Your task to perform on an android device: turn off wifi Image 0: 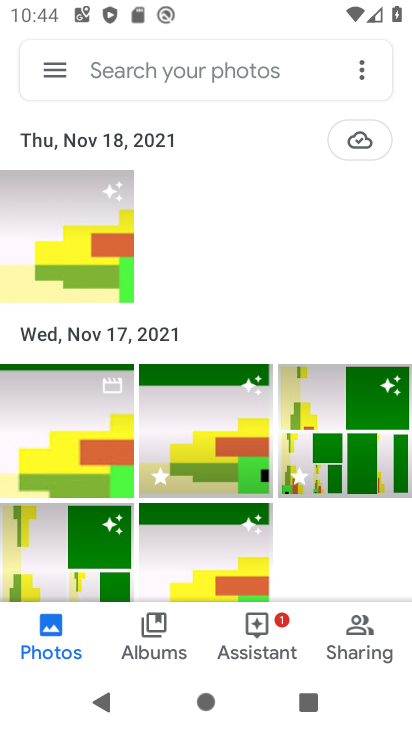
Step 0: press home button
Your task to perform on an android device: turn off wifi Image 1: 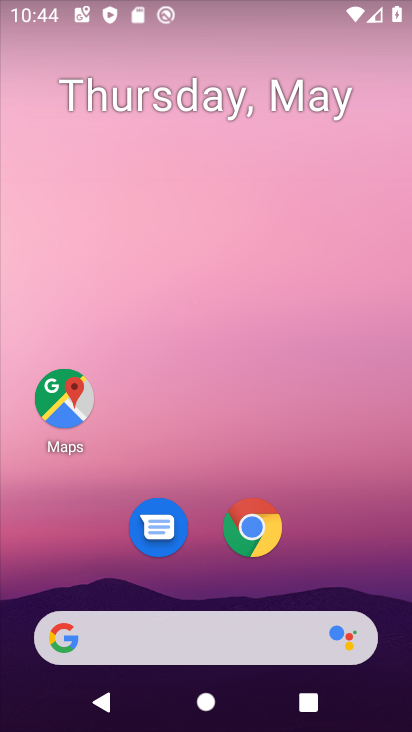
Step 1: drag from (362, 520) to (327, 0)
Your task to perform on an android device: turn off wifi Image 2: 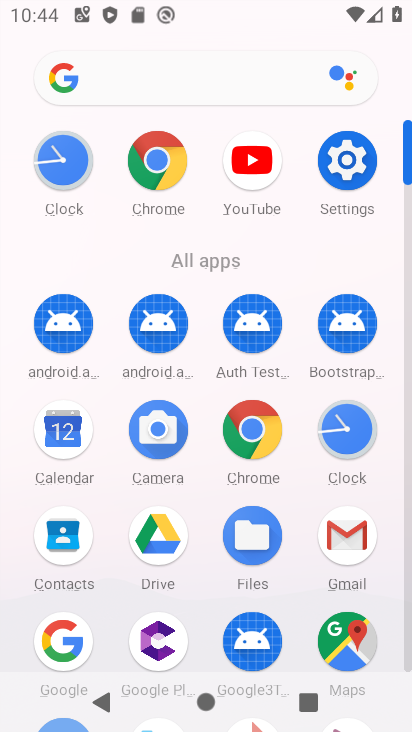
Step 2: click (347, 145)
Your task to perform on an android device: turn off wifi Image 3: 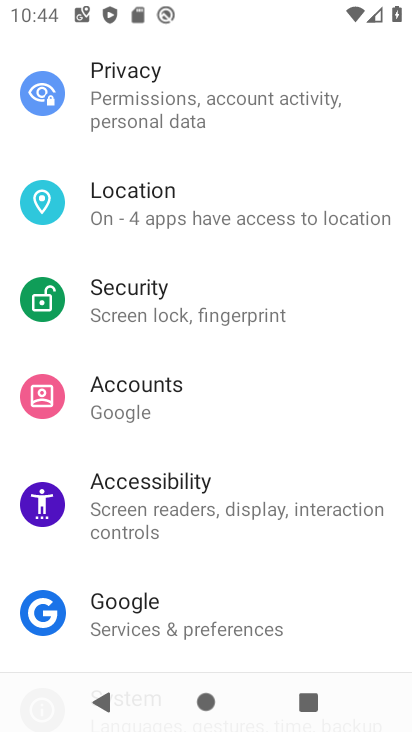
Step 3: drag from (252, 155) to (260, 592)
Your task to perform on an android device: turn off wifi Image 4: 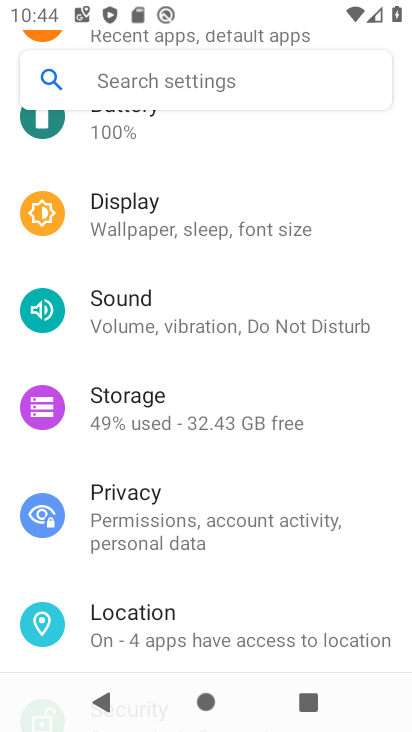
Step 4: drag from (244, 176) to (256, 582)
Your task to perform on an android device: turn off wifi Image 5: 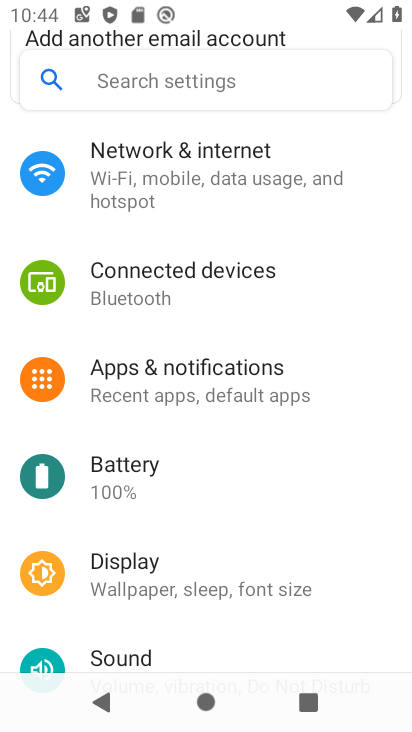
Step 5: drag from (200, 230) to (230, 535)
Your task to perform on an android device: turn off wifi Image 6: 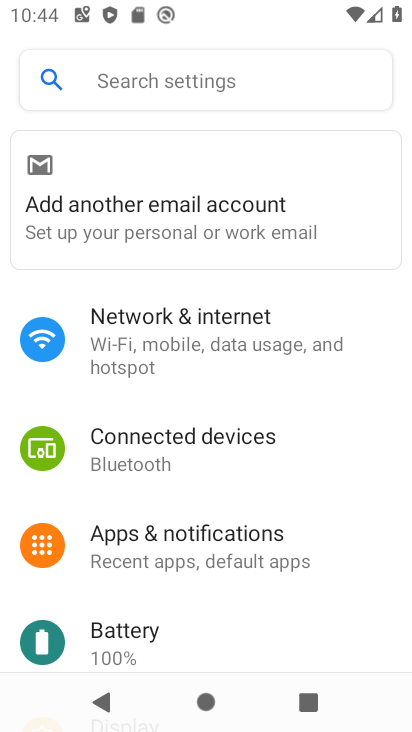
Step 6: click (200, 322)
Your task to perform on an android device: turn off wifi Image 7: 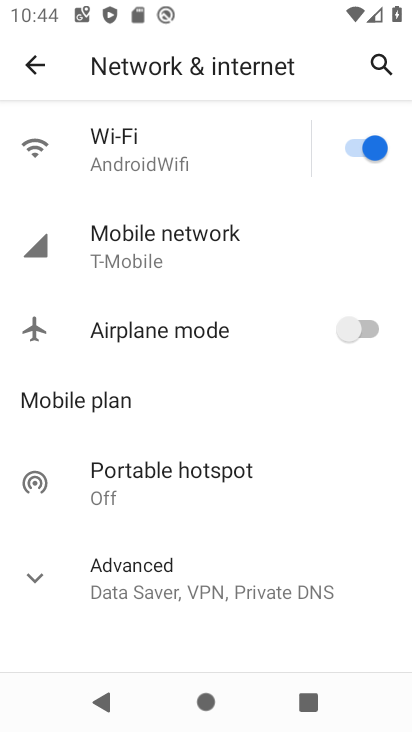
Step 7: click (357, 144)
Your task to perform on an android device: turn off wifi Image 8: 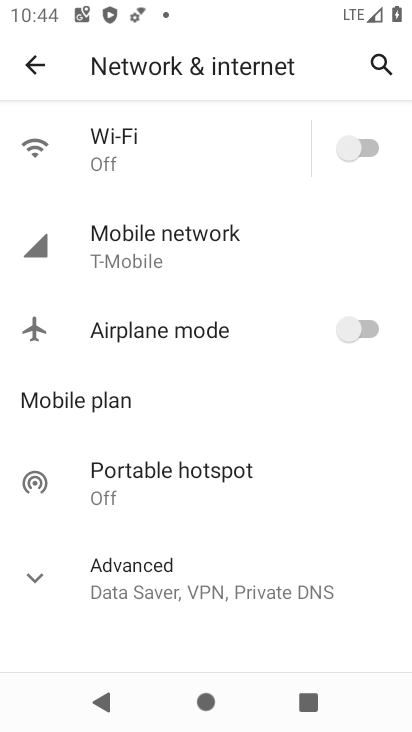
Step 8: task complete